Your task to perform on an android device: turn on improve location accuracy Image 0: 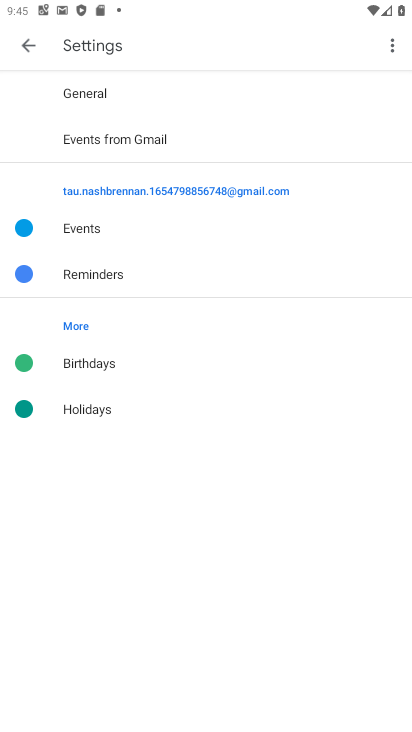
Step 0: press home button
Your task to perform on an android device: turn on improve location accuracy Image 1: 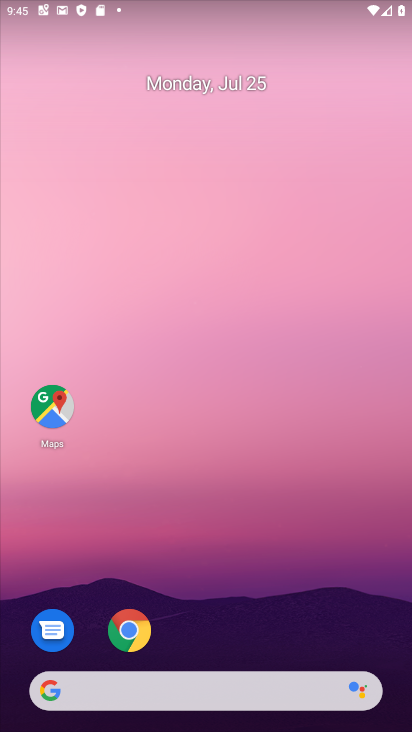
Step 1: drag from (232, 622) to (259, 99)
Your task to perform on an android device: turn on improve location accuracy Image 2: 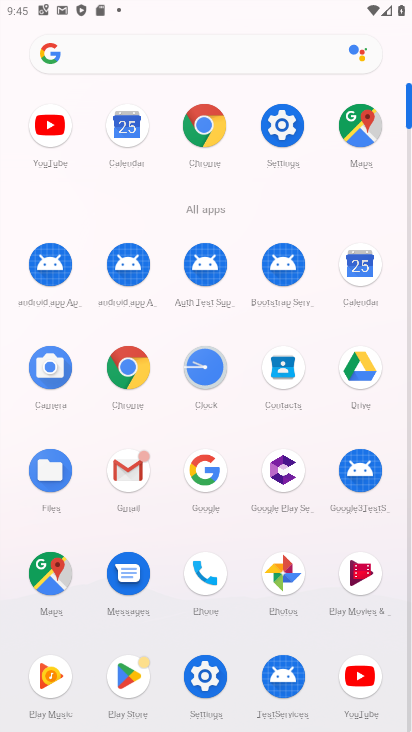
Step 2: click (281, 131)
Your task to perform on an android device: turn on improve location accuracy Image 3: 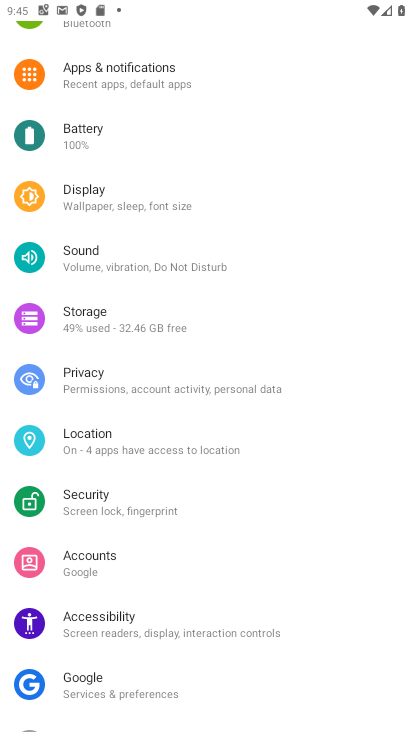
Step 3: click (86, 446)
Your task to perform on an android device: turn on improve location accuracy Image 4: 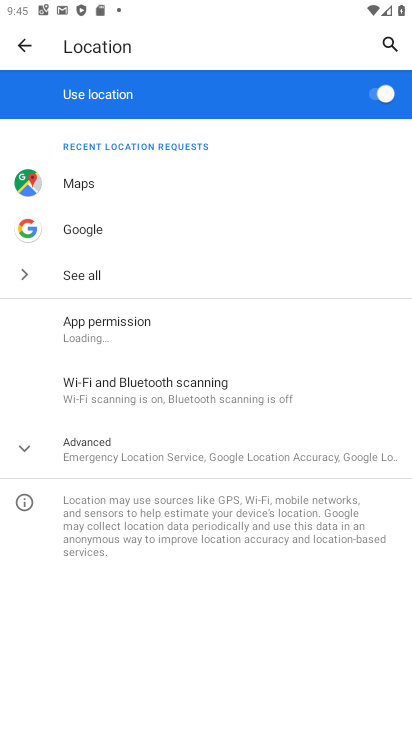
Step 4: click (96, 452)
Your task to perform on an android device: turn on improve location accuracy Image 5: 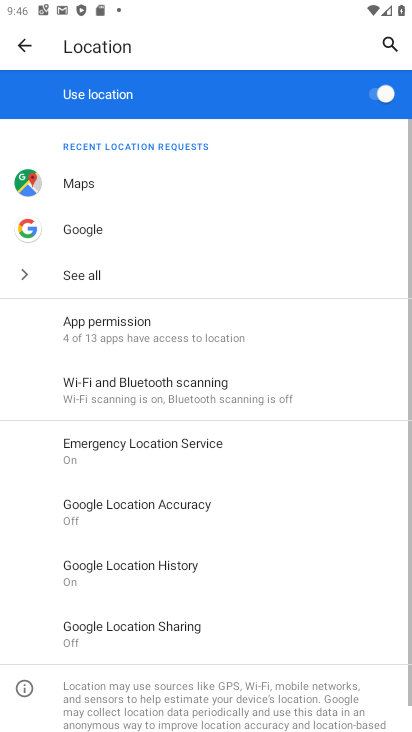
Step 5: click (132, 510)
Your task to perform on an android device: turn on improve location accuracy Image 6: 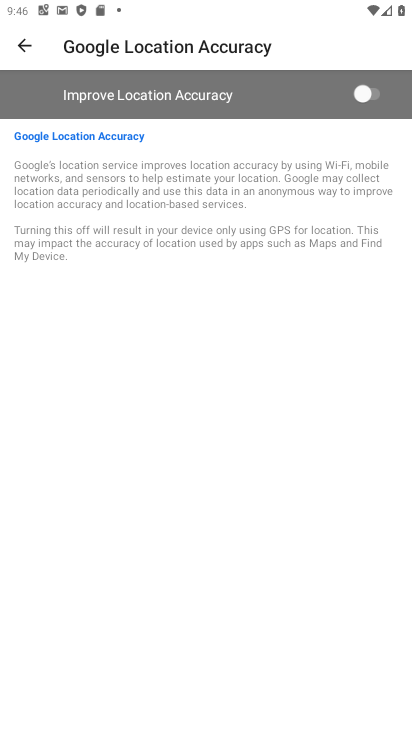
Step 6: click (362, 99)
Your task to perform on an android device: turn on improve location accuracy Image 7: 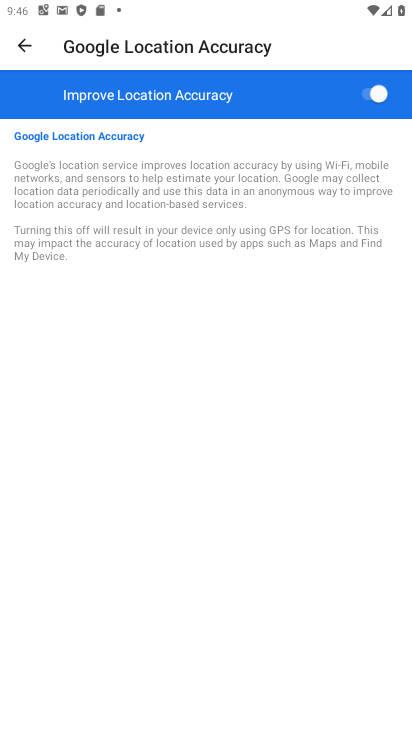
Step 7: task complete